Your task to perform on an android device: Do I have any events this weekend? Image 0: 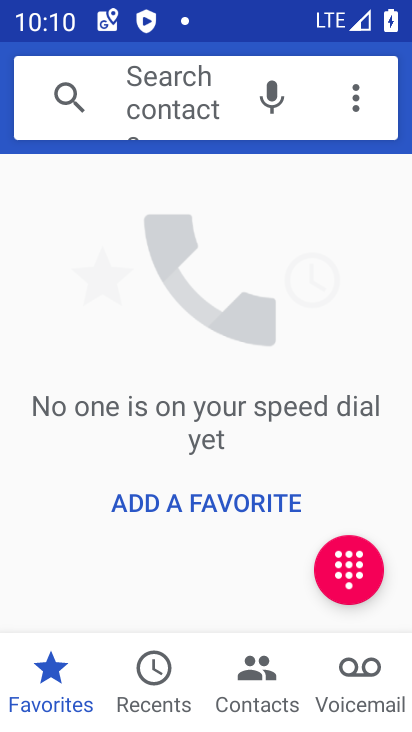
Step 0: press home button
Your task to perform on an android device: Do I have any events this weekend? Image 1: 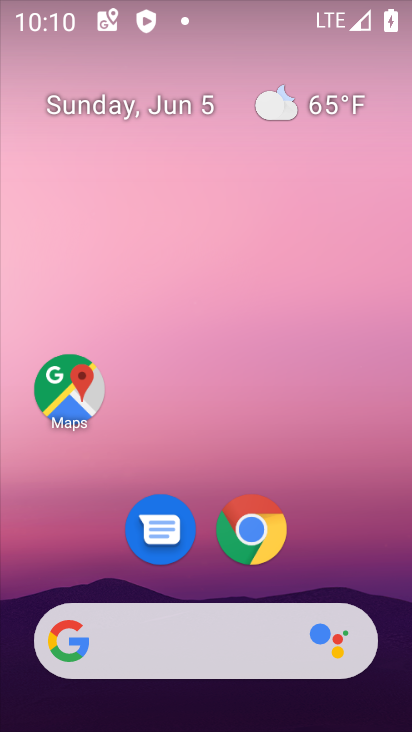
Step 1: drag from (269, 724) to (368, 20)
Your task to perform on an android device: Do I have any events this weekend? Image 2: 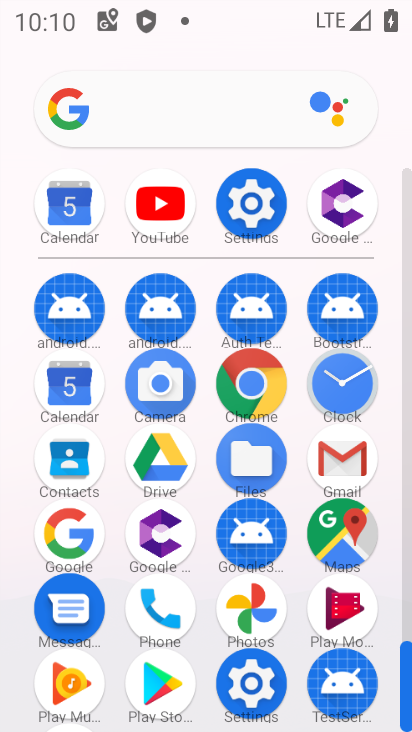
Step 2: click (72, 397)
Your task to perform on an android device: Do I have any events this weekend? Image 3: 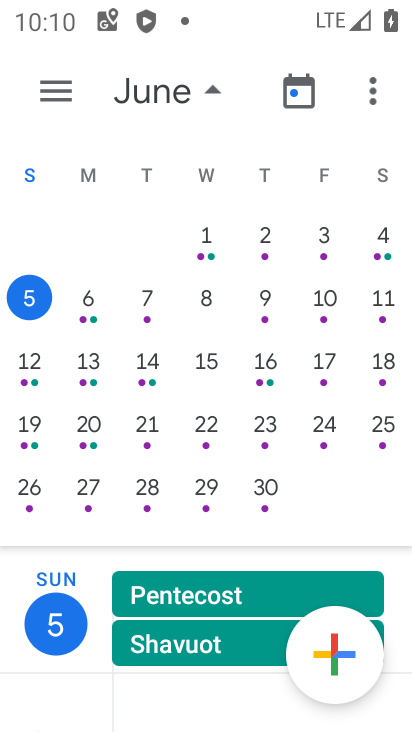
Step 3: click (388, 300)
Your task to perform on an android device: Do I have any events this weekend? Image 4: 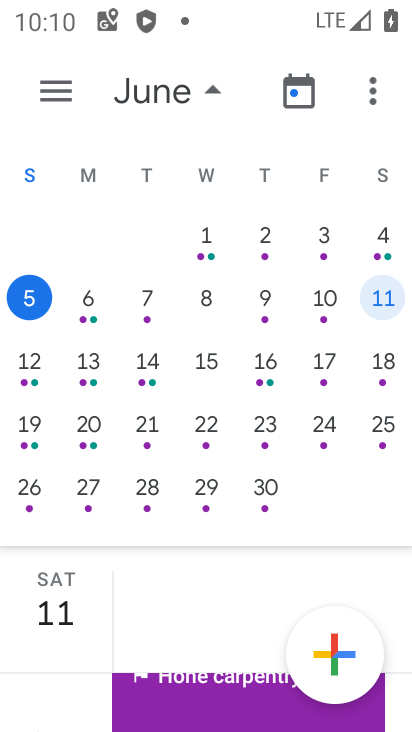
Step 4: task complete